Your task to perform on an android device: toggle wifi Image 0: 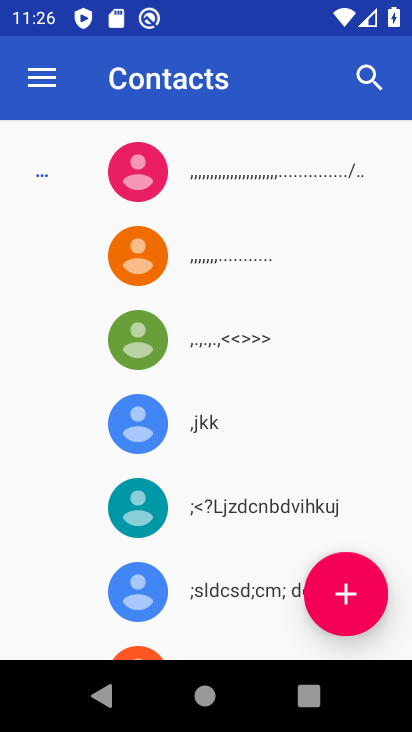
Step 0: press home button
Your task to perform on an android device: toggle wifi Image 1: 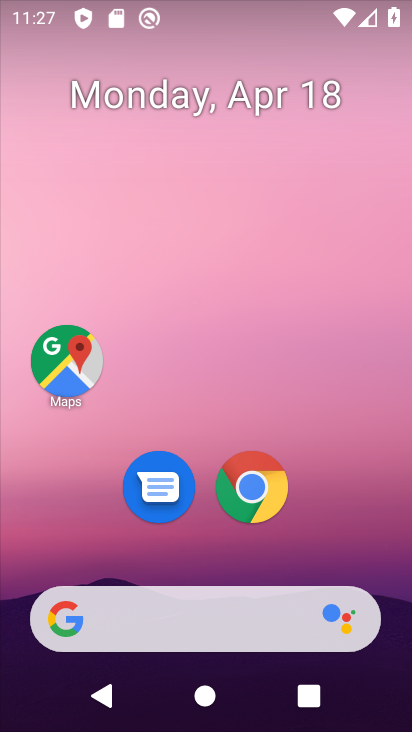
Step 1: drag from (207, 566) to (227, 4)
Your task to perform on an android device: toggle wifi Image 2: 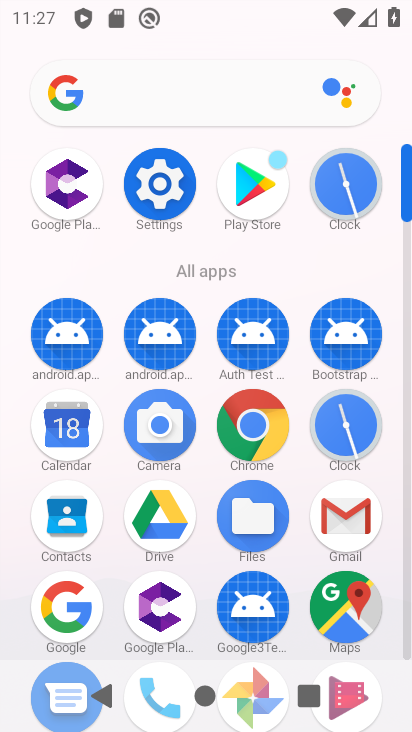
Step 2: click (142, 176)
Your task to perform on an android device: toggle wifi Image 3: 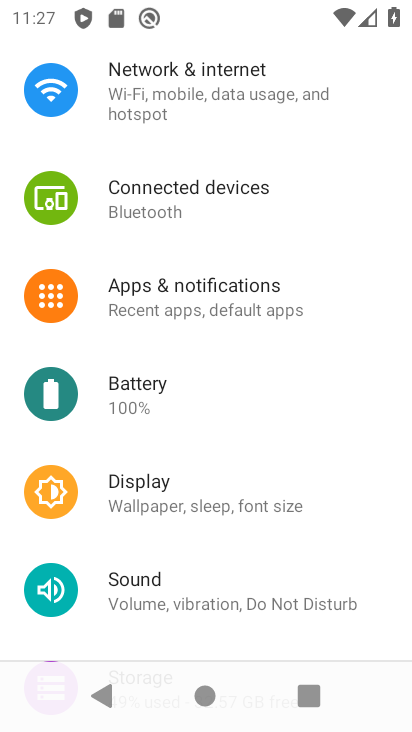
Step 3: click (170, 89)
Your task to perform on an android device: toggle wifi Image 4: 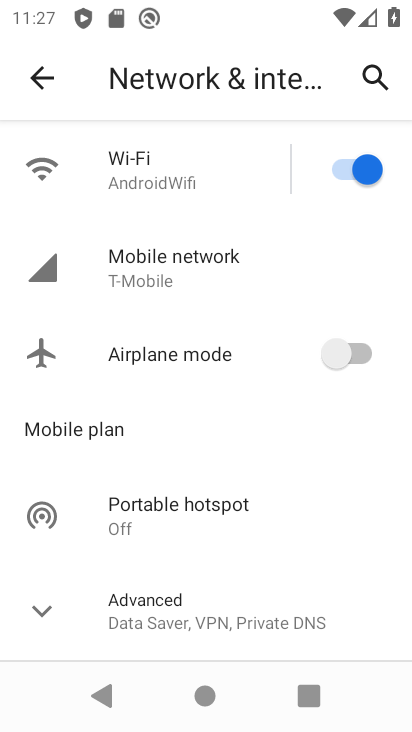
Step 4: click (369, 166)
Your task to perform on an android device: toggle wifi Image 5: 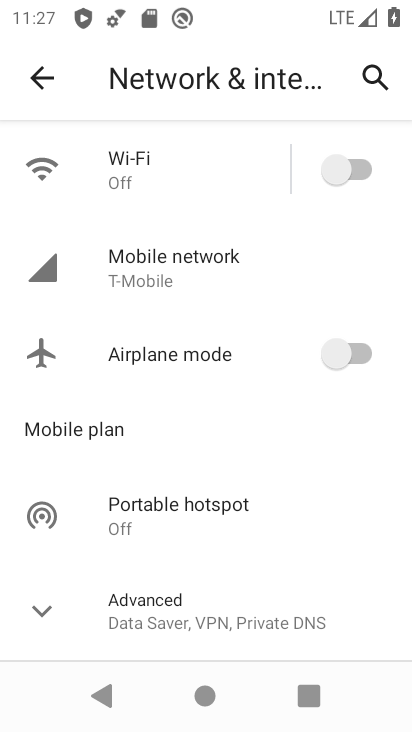
Step 5: task complete